Your task to perform on an android device: open wifi settings Image 0: 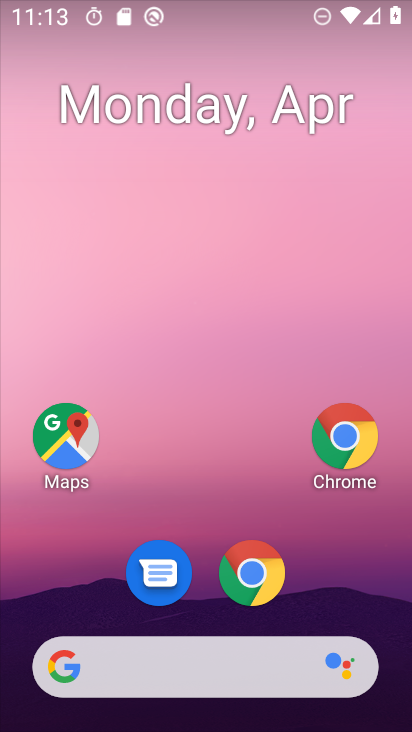
Step 0: drag from (366, 532) to (333, 56)
Your task to perform on an android device: open wifi settings Image 1: 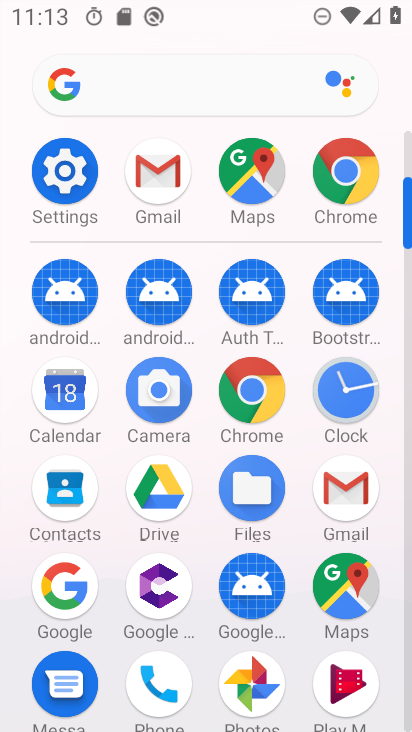
Step 1: click (45, 186)
Your task to perform on an android device: open wifi settings Image 2: 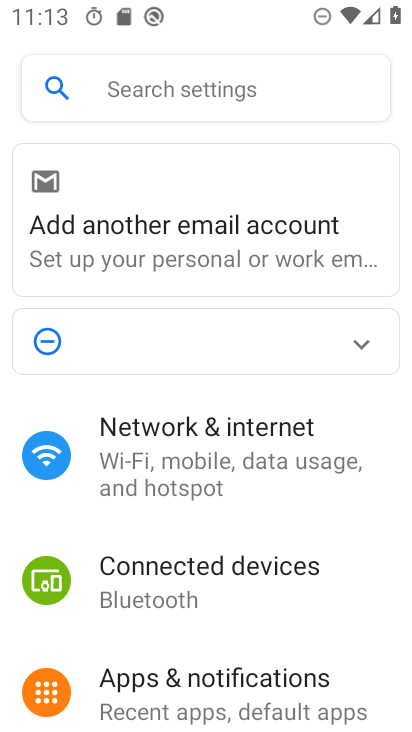
Step 2: click (198, 472)
Your task to perform on an android device: open wifi settings Image 3: 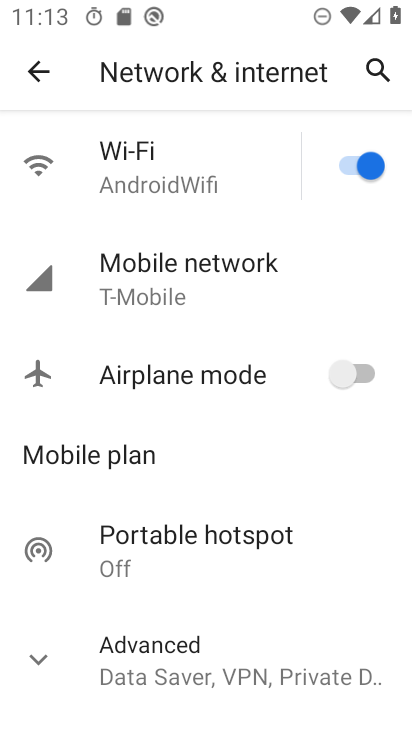
Step 3: click (156, 156)
Your task to perform on an android device: open wifi settings Image 4: 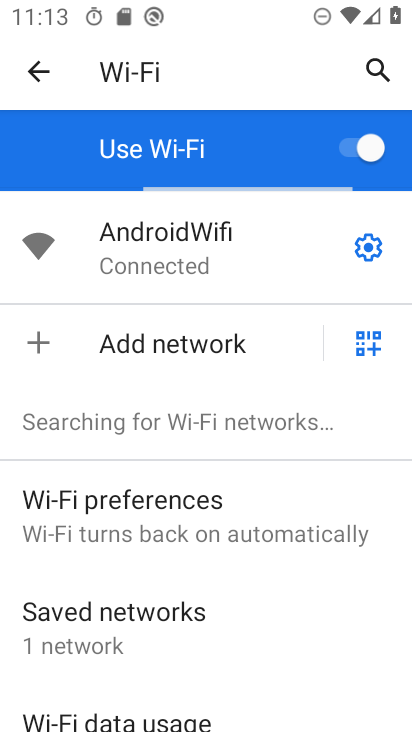
Step 4: task complete